Your task to perform on an android device: toggle notifications settings in the gmail app Image 0: 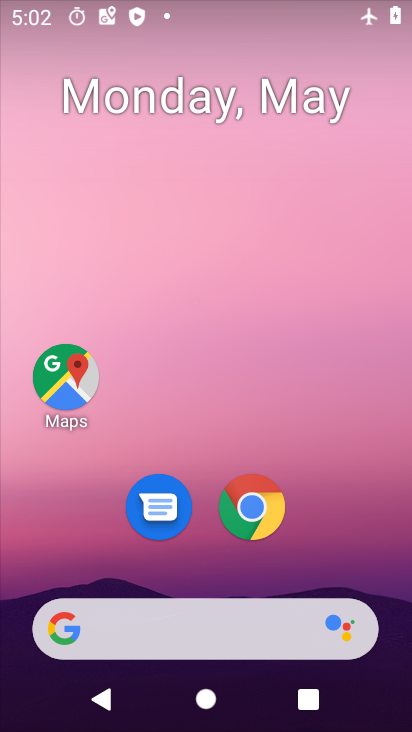
Step 0: click (339, 121)
Your task to perform on an android device: toggle notifications settings in the gmail app Image 1: 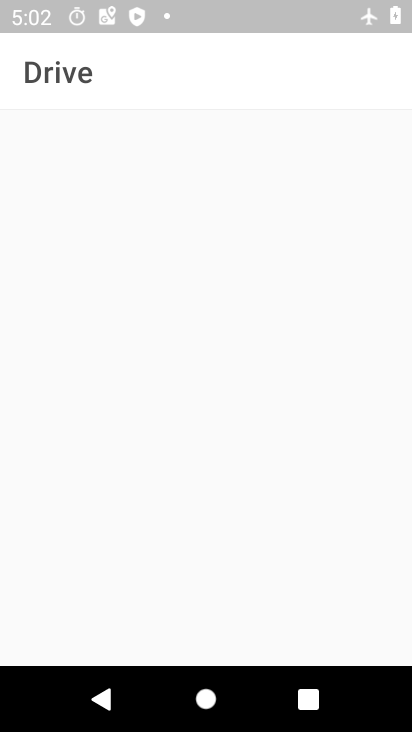
Step 1: press home button
Your task to perform on an android device: toggle notifications settings in the gmail app Image 2: 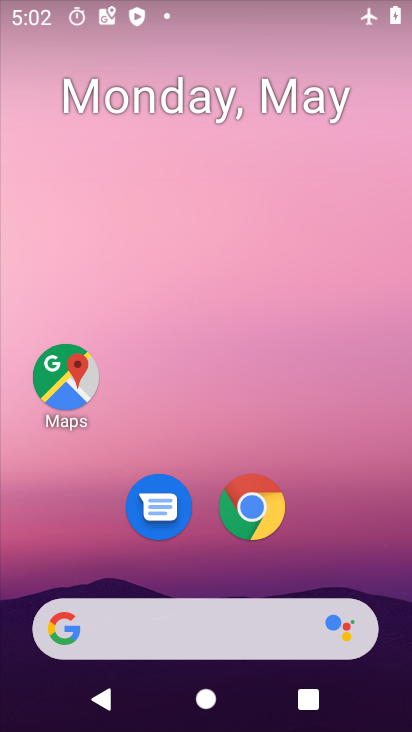
Step 2: drag from (335, 429) to (275, 6)
Your task to perform on an android device: toggle notifications settings in the gmail app Image 3: 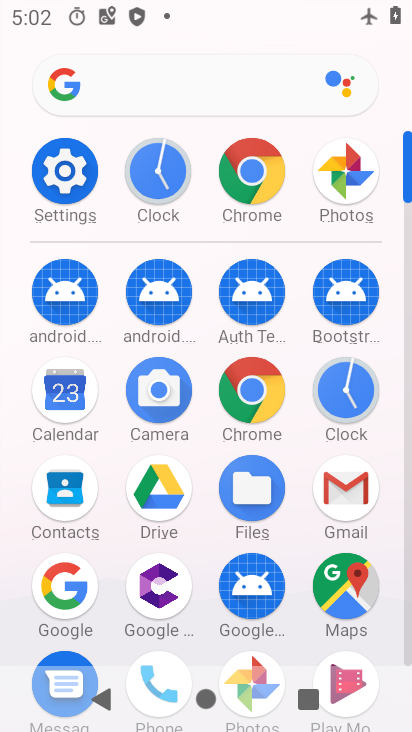
Step 3: click (327, 476)
Your task to perform on an android device: toggle notifications settings in the gmail app Image 4: 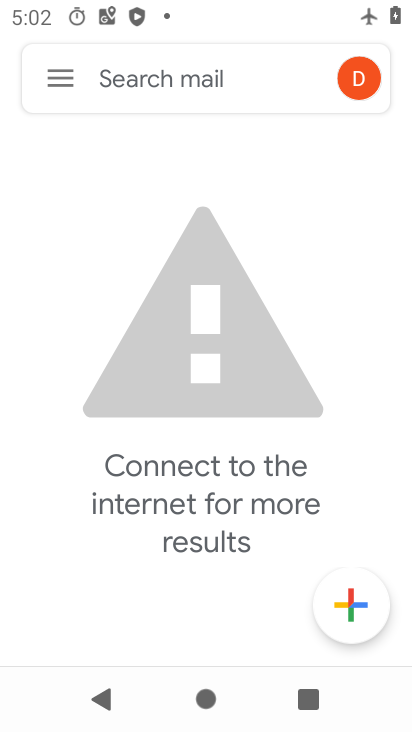
Step 4: click (66, 72)
Your task to perform on an android device: toggle notifications settings in the gmail app Image 5: 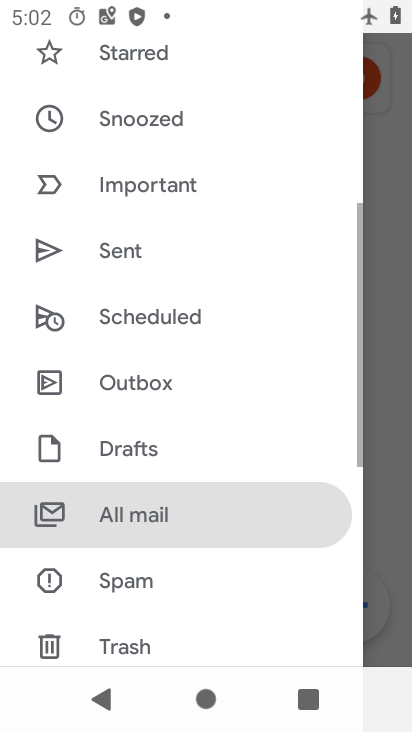
Step 5: drag from (152, 623) to (203, 87)
Your task to perform on an android device: toggle notifications settings in the gmail app Image 6: 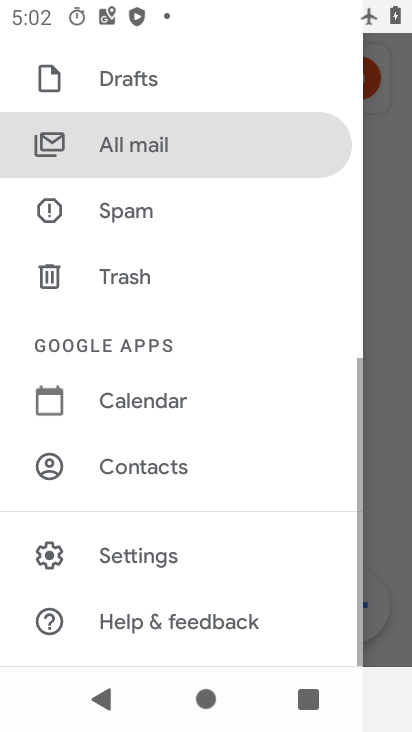
Step 6: click (147, 554)
Your task to perform on an android device: toggle notifications settings in the gmail app Image 7: 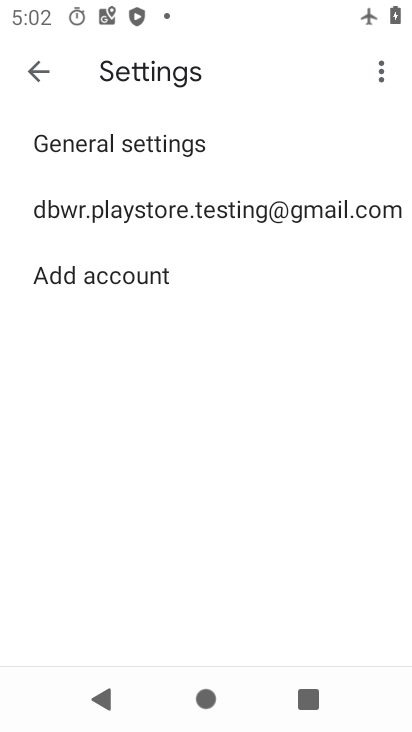
Step 7: click (159, 213)
Your task to perform on an android device: toggle notifications settings in the gmail app Image 8: 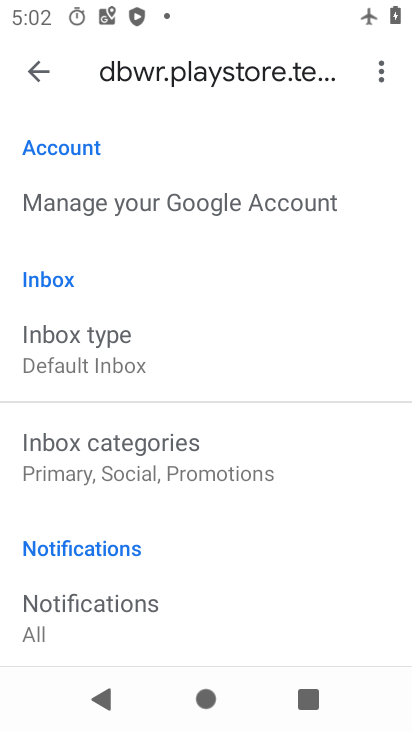
Step 8: drag from (171, 592) to (208, 216)
Your task to perform on an android device: toggle notifications settings in the gmail app Image 9: 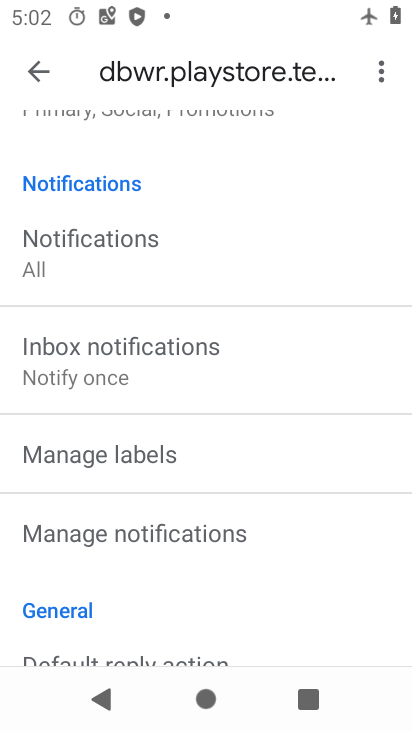
Step 9: click (75, 247)
Your task to perform on an android device: toggle notifications settings in the gmail app Image 10: 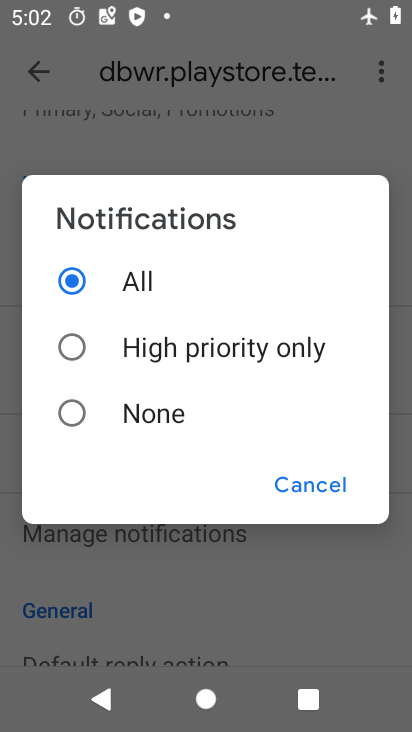
Step 10: click (101, 338)
Your task to perform on an android device: toggle notifications settings in the gmail app Image 11: 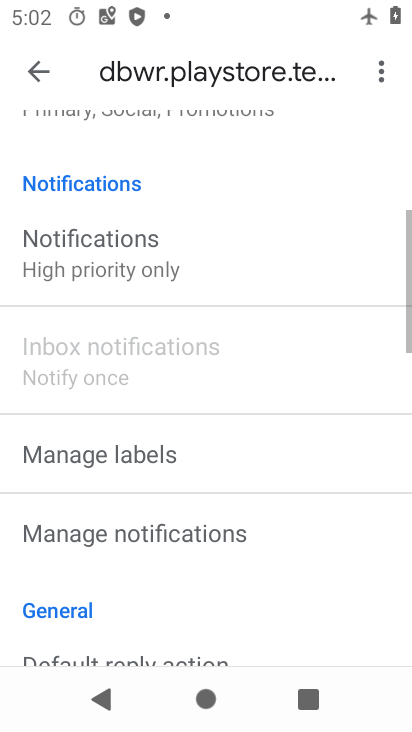
Step 11: task complete